Your task to perform on an android device: Go to Yahoo.com Image 0: 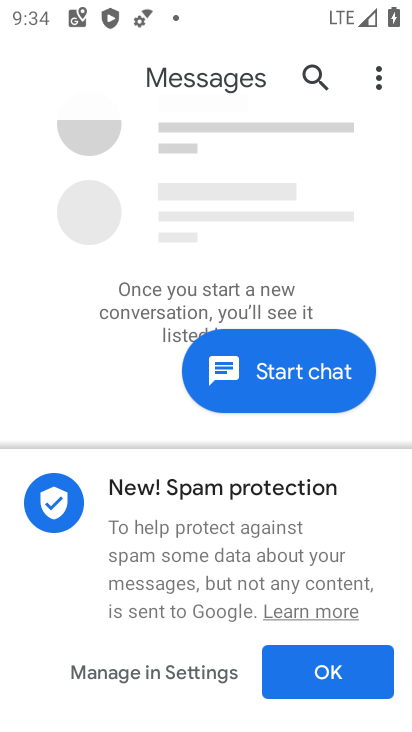
Step 0: press home button
Your task to perform on an android device: Go to Yahoo.com Image 1: 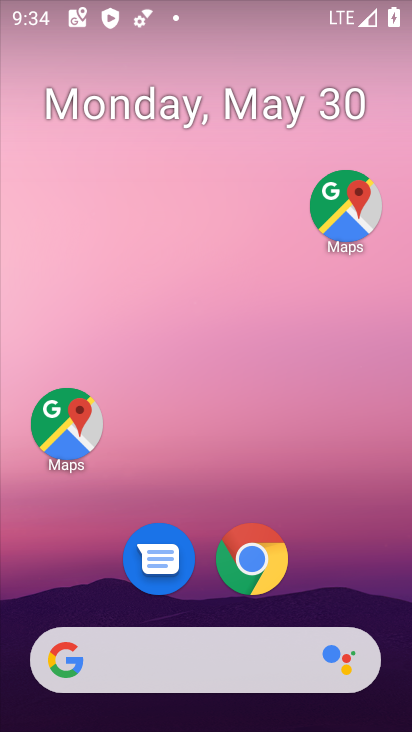
Step 1: click (248, 556)
Your task to perform on an android device: Go to Yahoo.com Image 2: 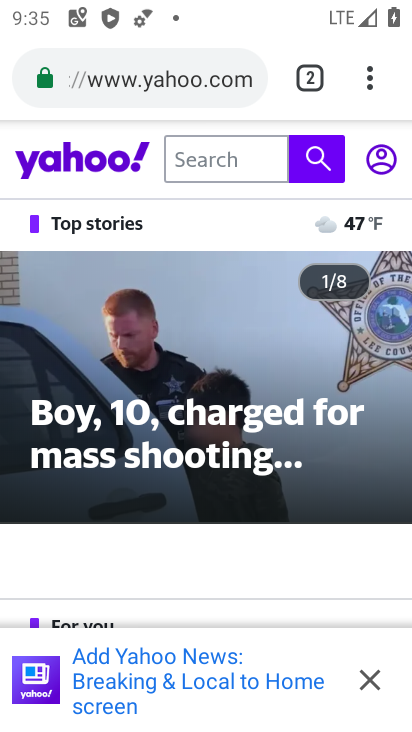
Step 2: task complete